Your task to perform on an android device: turn off picture-in-picture Image 0: 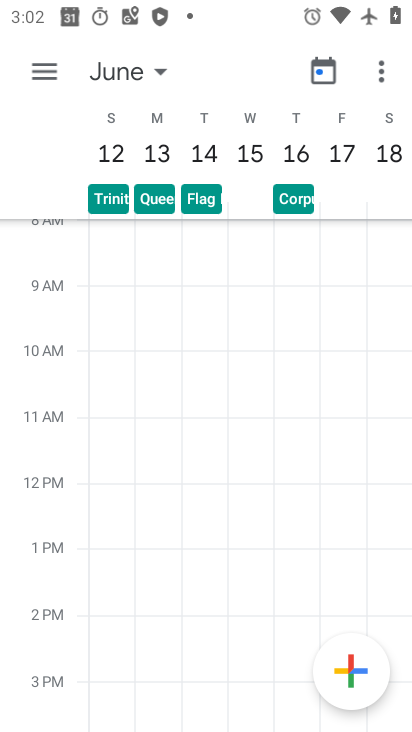
Step 0: press home button
Your task to perform on an android device: turn off picture-in-picture Image 1: 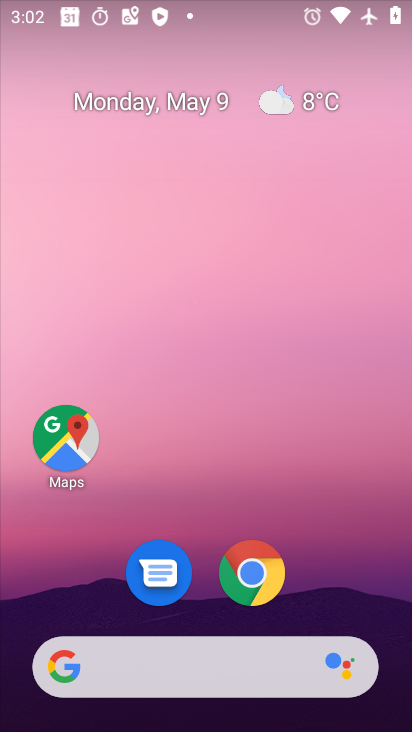
Step 1: drag from (242, 568) to (234, 384)
Your task to perform on an android device: turn off picture-in-picture Image 2: 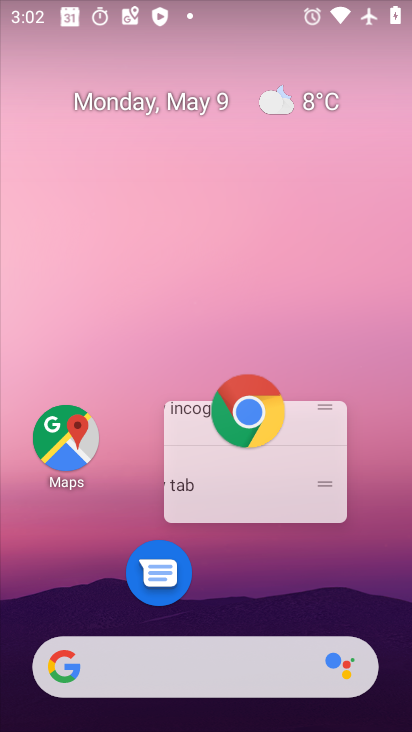
Step 2: click (255, 351)
Your task to perform on an android device: turn off picture-in-picture Image 3: 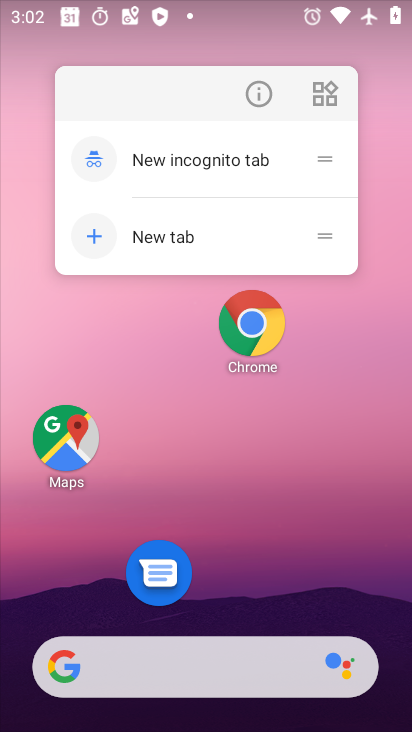
Step 3: click (251, 329)
Your task to perform on an android device: turn off picture-in-picture Image 4: 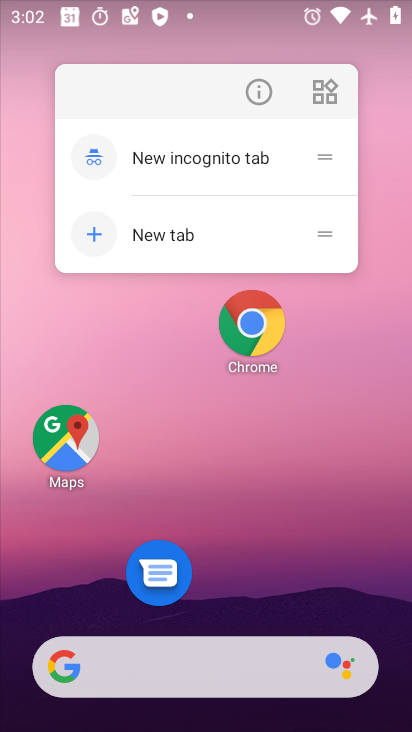
Step 4: click (250, 91)
Your task to perform on an android device: turn off picture-in-picture Image 5: 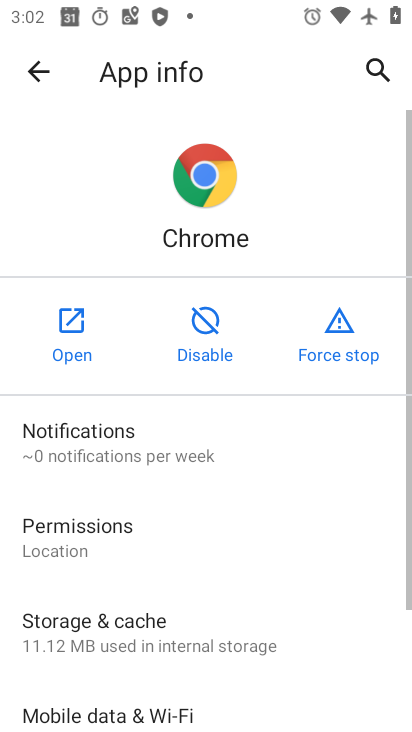
Step 5: drag from (127, 664) to (251, 91)
Your task to perform on an android device: turn off picture-in-picture Image 6: 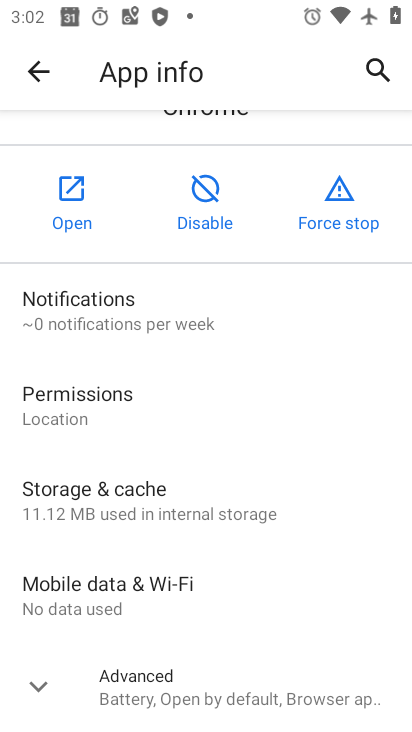
Step 6: click (98, 676)
Your task to perform on an android device: turn off picture-in-picture Image 7: 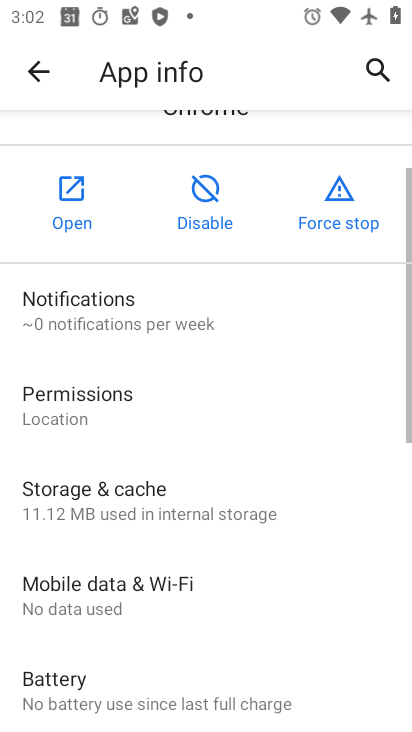
Step 7: drag from (142, 697) to (310, 79)
Your task to perform on an android device: turn off picture-in-picture Image 8: 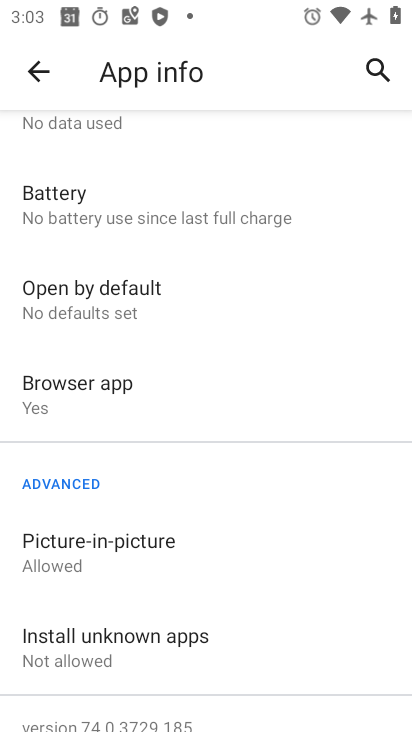
Step 8: click (125, 544)
Your task to perform on an android device: turn off picture-in-picture Image 9: 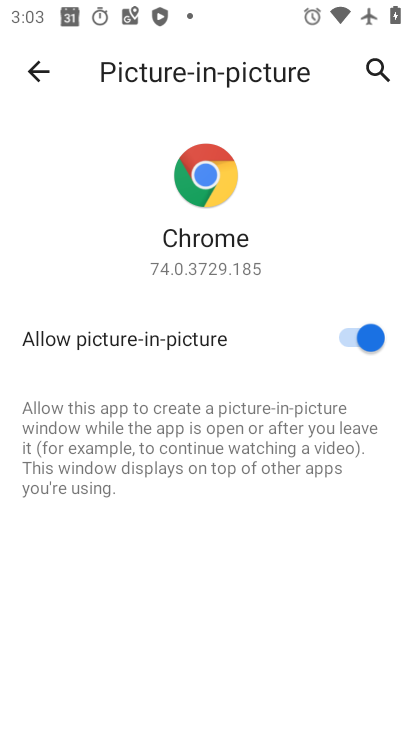
Step 9: click (349, 337)
Your task to perform on an android device: turn off picture-in-picture Image 10: 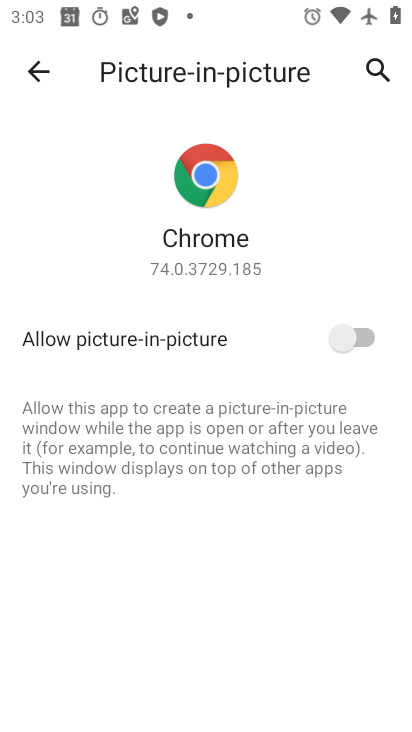
Step 10: task complete